Your task to perform on an android device: clear all cookies in the chrome app Image 0: 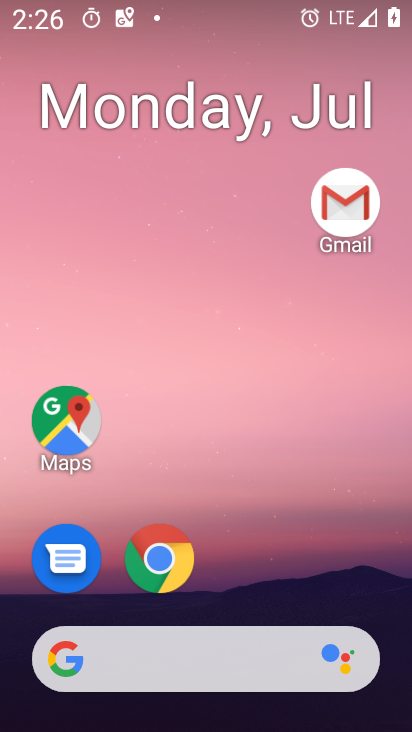
Step 0: drag from (356, 593) to (373, 144)
Your task to perform on an android device: clear all cookies in the chrome app Image 1: 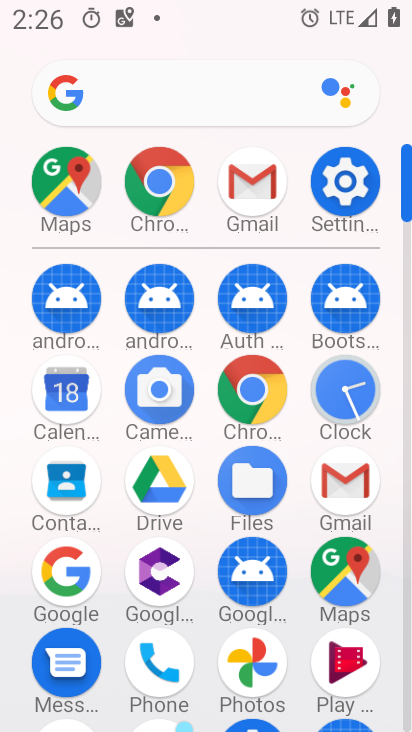
Step 1: click (251, 389)
Your task to perform on an android device: clear all cookies in the chrome app Image 2: 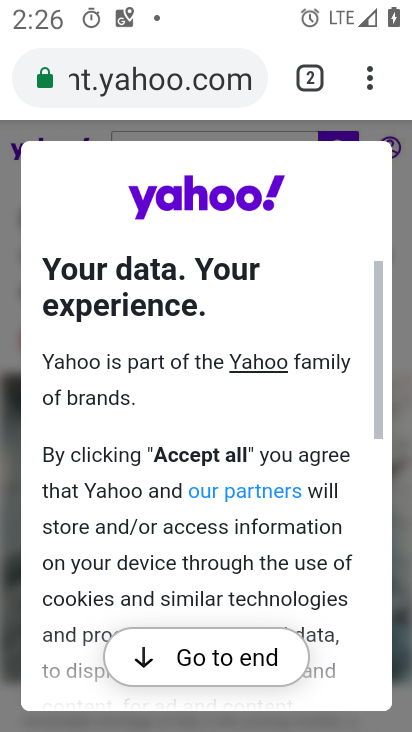
Step 2: click (368, 77)
Your task to perform on an android device: clear all cookies in the chrome app Image 3: 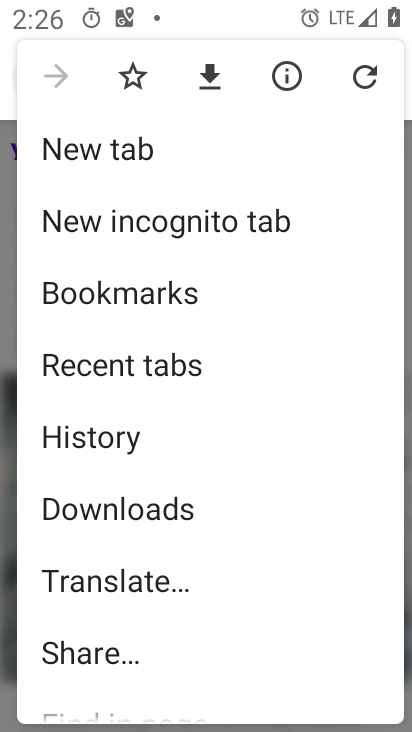
Step 3: drag from (319, 553) to (305, 363)
Your task to perform on an android device: clear all cookies in the chrome app Image 4: 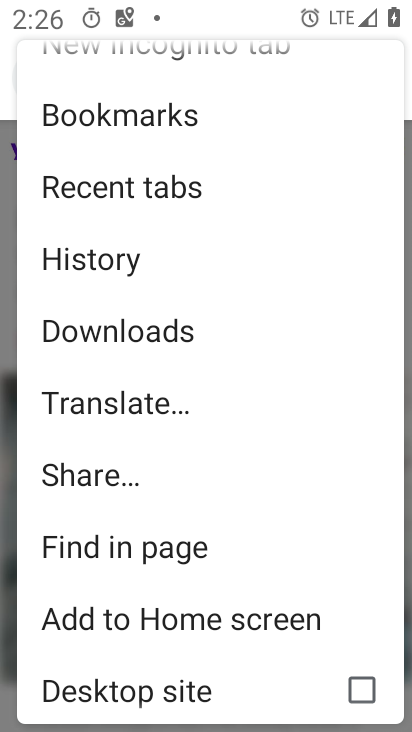
Step 4: drag from (298, 495) to (309, 300)
Your task to perform on an android device: clear all cookies in the chrome app Image 5: 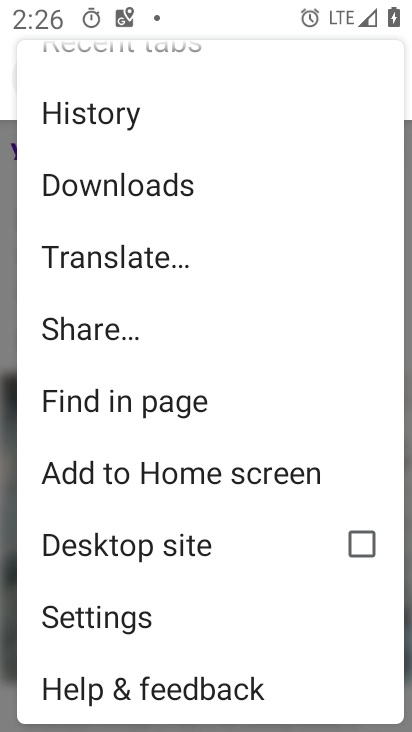
Step 5: drag from (294, 609) to (291, 465)
Your task to perform on an android device: clear all cookies in the chrome app Image 6: 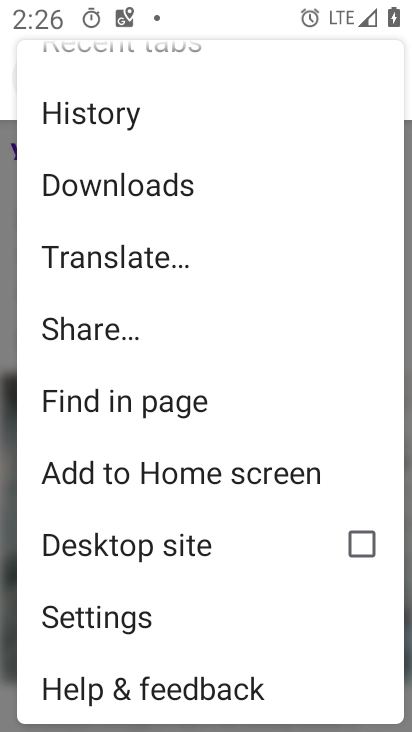
Step 6: drag from (279, 584) to (279, 541)
Your task to perform on an android device: clear all cookies in the chrome app Image 7: 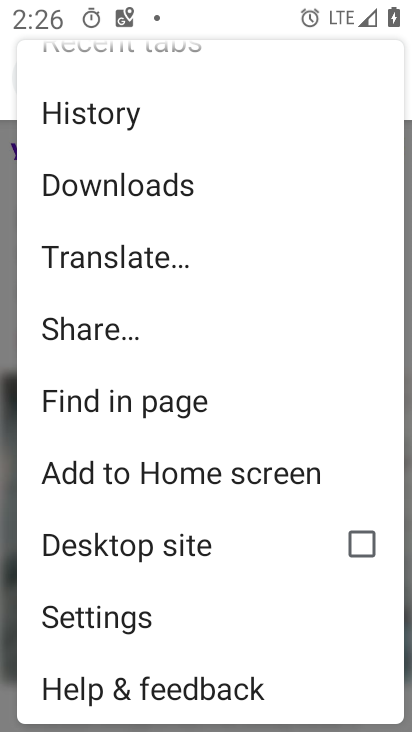
Step 7: click (166, 609)
Your task to perform on an android device: clear all cookies in the chrome app Image 8: 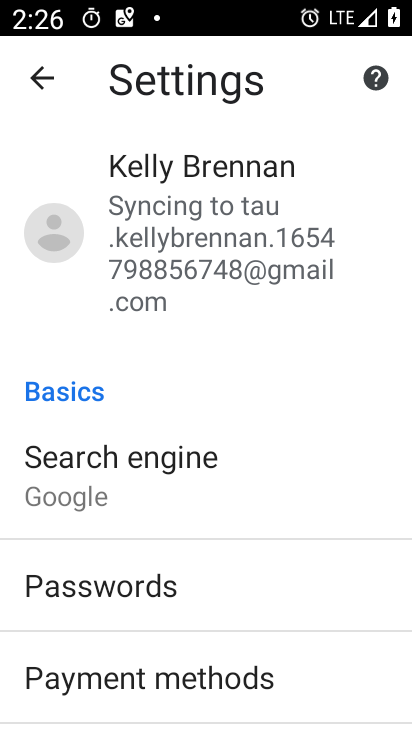
Step 8: drag from (291, 555) to (297, 441)
Your task to perform on an android device: clear all cookies in the chrome app Image 9: 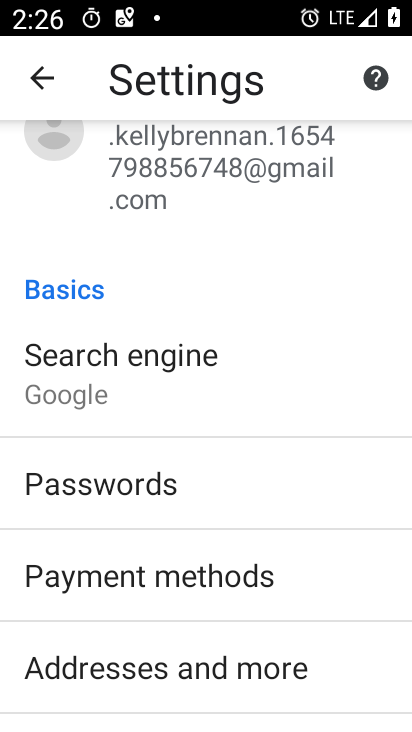
Step 9: drag from (316, 600) to (329, 395)
Your task to perform on an android device: clear all cookies in the chrome app Image 10: 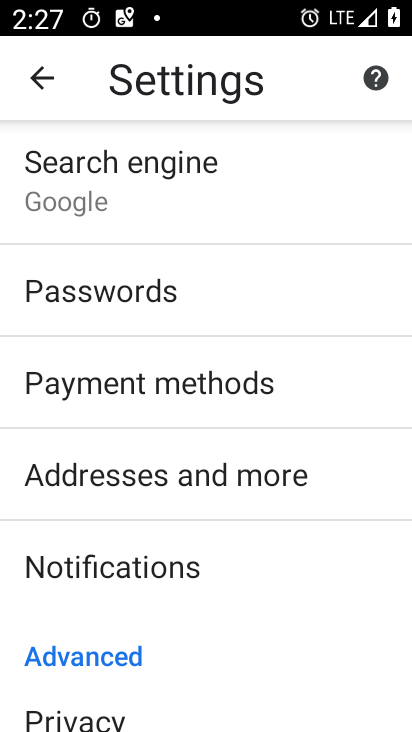
Step 10: drag from (348, 598) to (351, 476)
Your task to perform on an android device: clear all cookies in the chrome app Image 11: 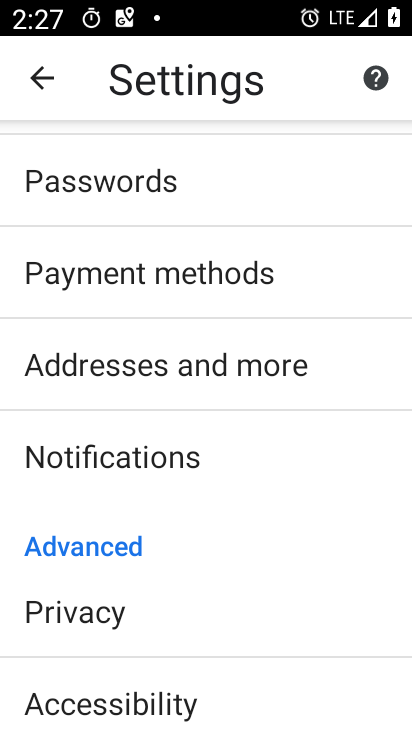
Step 11: drag from (329, 573) to (312, 404)
Your task to perform on an android device: clear all cookies in the chrome app Image 12: 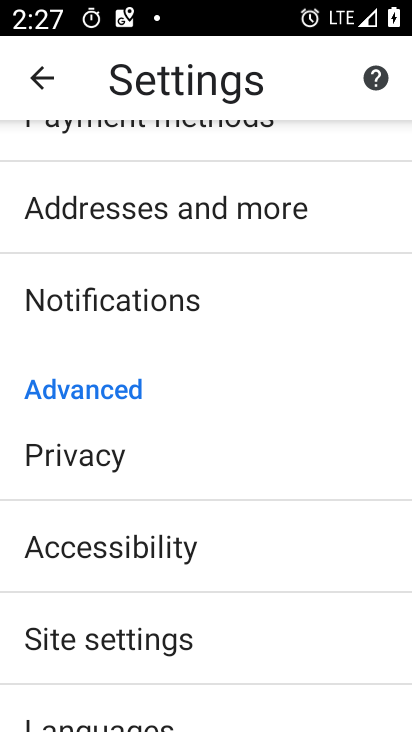
Step 12: click (290, 456)
Your task to perform on an android device: clear all cookies in the chrome app Image 13: 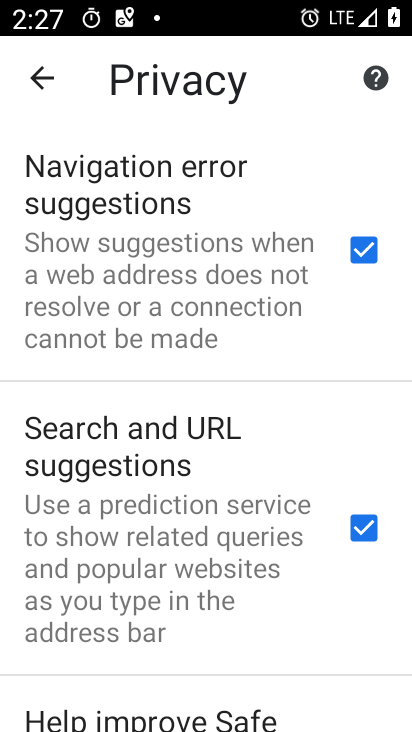
Step 13: drag from (310, 624) to (308, 479)
Your task to perform on an android device: clear all cookies in the chrome app Image 14: 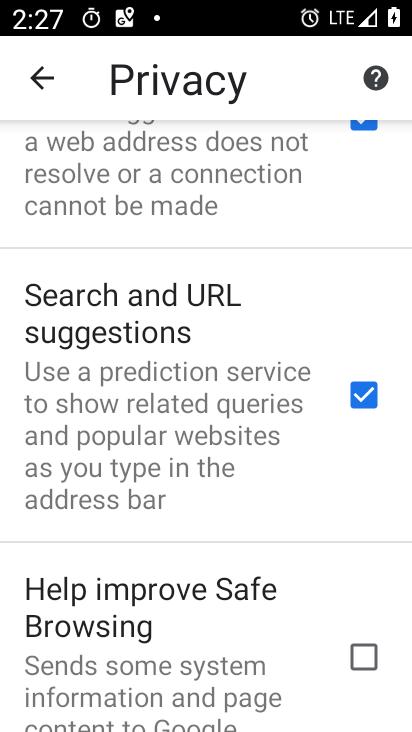
Step 14: drag from (308, 550) to (287, 422)
Your task to perform on an android device: clear all cookies in the chrome app Image 15: 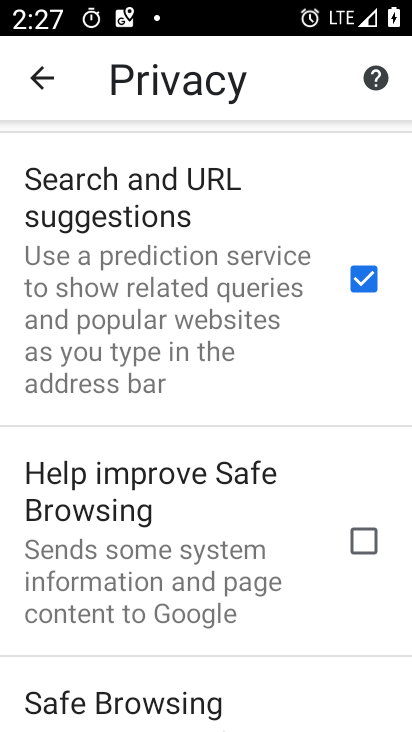
Step 15: drag from (269, 528) to (257, 402)
Your task to perform on an android device: clear all cookies in the chrome app Image 16: 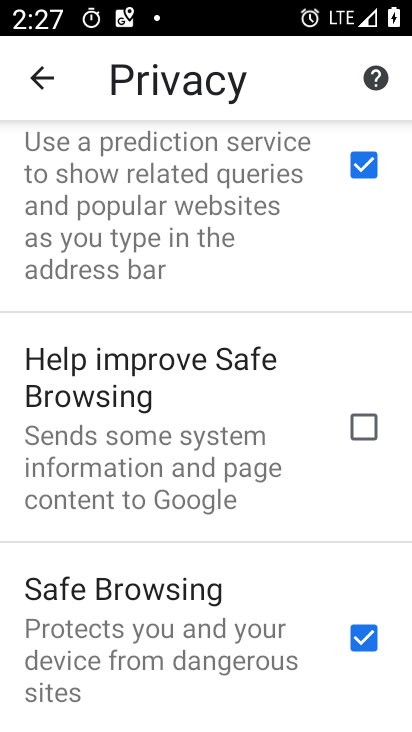
Step 16: drag from (243, 513) to (227, 394)
Your task to perform on an android device: clear all cookies in the chrome app Image 17: 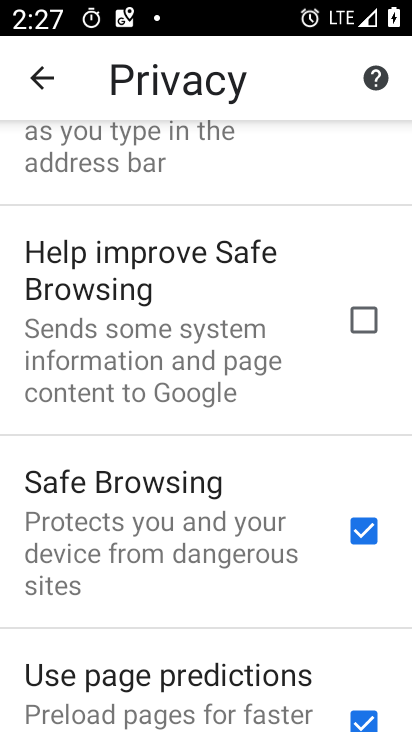
Step 17: drag from (283, 579) to (255, 379)
Your task to perform on an android device: clear all cookies in the chrome app Image 18: 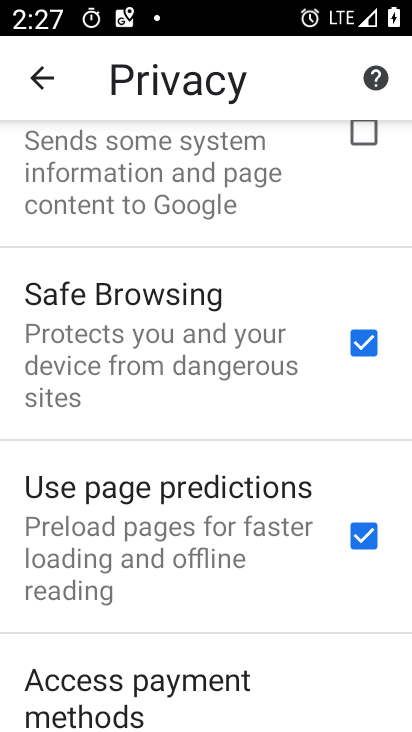
Step 18: drag from (264, 530) to (261, 357)
Your task to perform on an android device: clear all cookies in the chrome app Image 19: 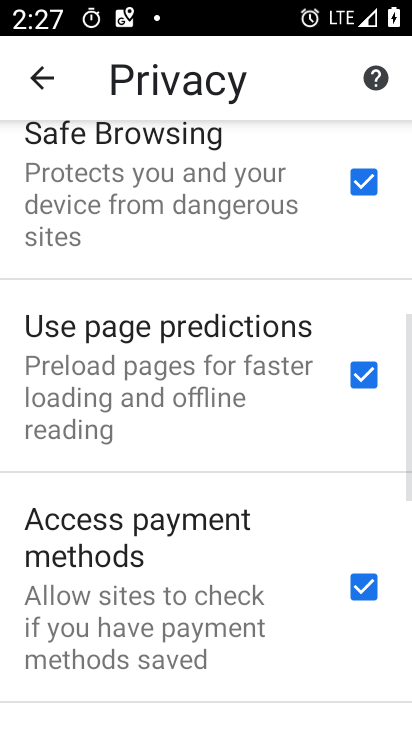
Step 19: drag from (295, 571) to (328, 362)
Your task to perform on an android device: clear all cookies in the chrome app Image 20: 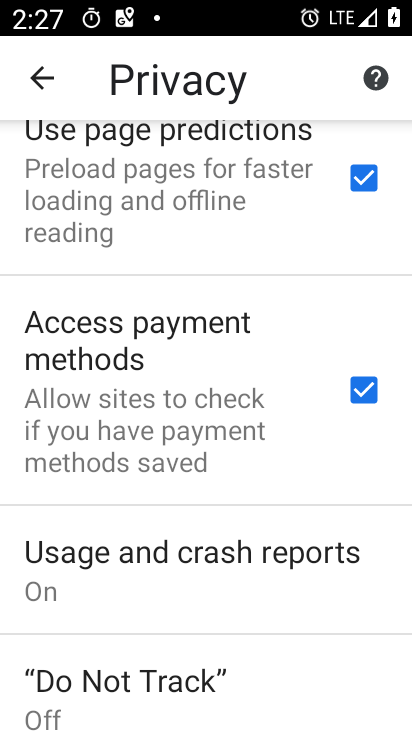
Step 20: drag from (305, 595) to (311, 477)
Your task to perform on an android device: clear all cookies in the chrome app Image 21: 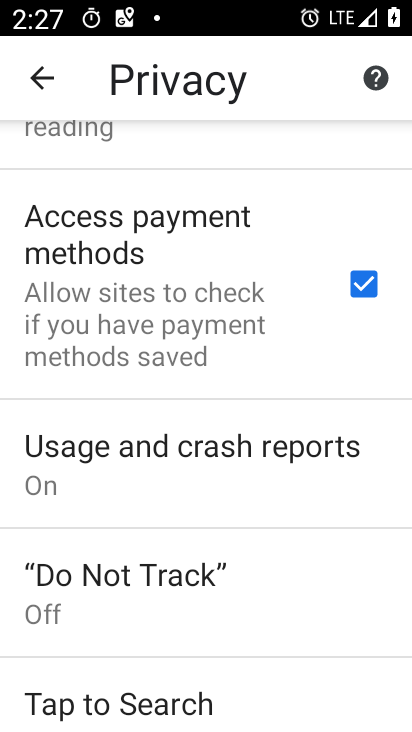
Step 21: drag from (277, 609) to (288, 485)
Your task to perform on an android device: clear all cookies in the chrome app Image 22: 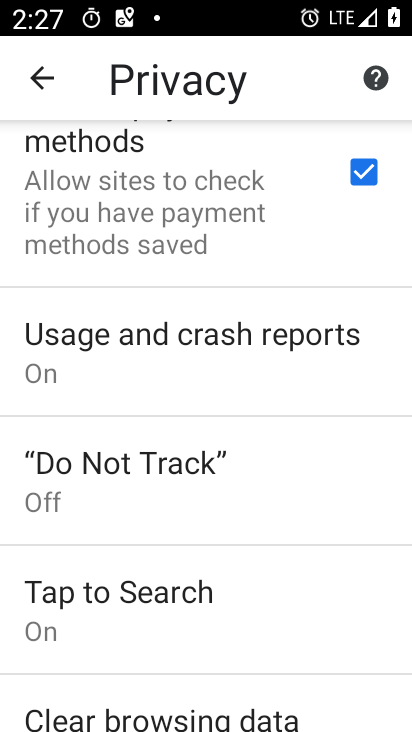
Step 22: drag from (289, 574) to (292, 435)
Your task to perform on an android device: clear all cookies in the chrome app Image 23: 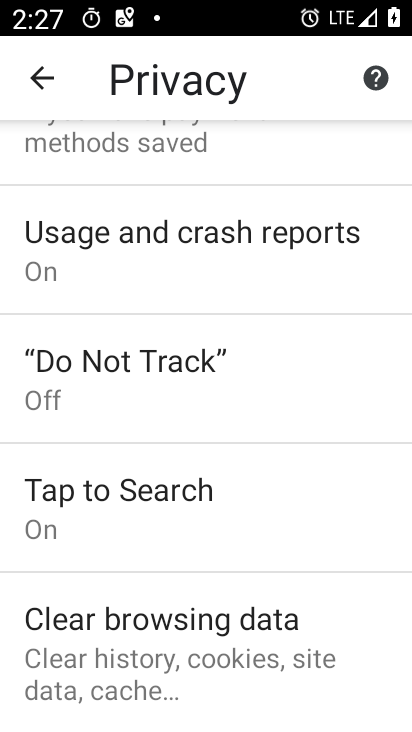
Step 23: drag from (316, 582) to (310, 429)
Your task to perform on an android device: clear all cookies in the chrome app Image 24: 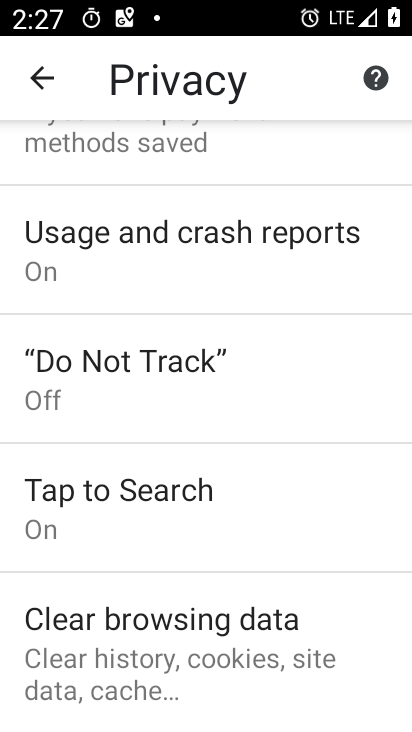
Step 24: click (291, 660)
Your task to perform on an android device: clear all cookies in the chrome app Image 25: 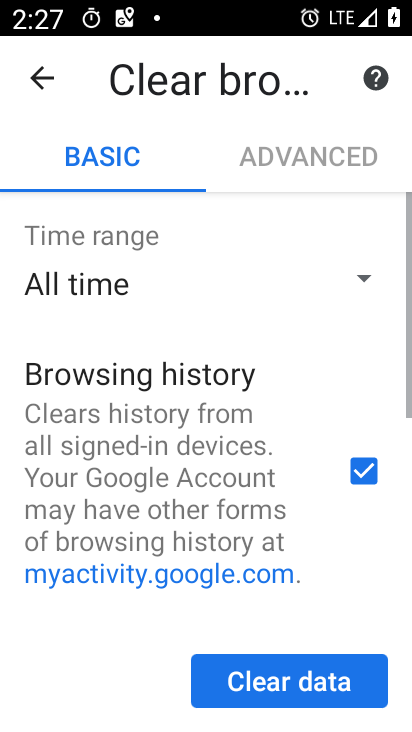
Step 25: click (302, 691)
Your task to perform on an android device: clear all cookies in the chrome app Image 26: 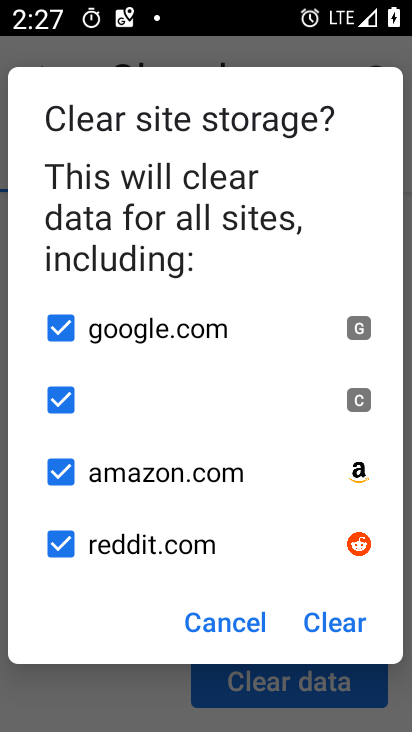
Step 26: click (375, 619)
Your task to perform on an android device: clear all cookies in the chrome app Image 27: 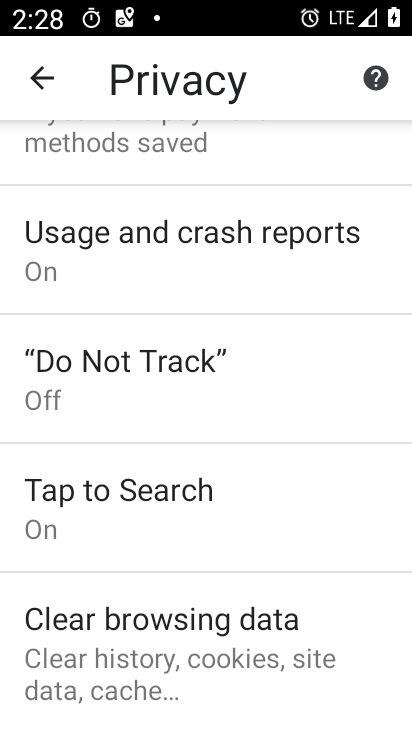
Step 27: task complete